Your task to perform on an android device: Open Chrome and go to the settings page Image 0: 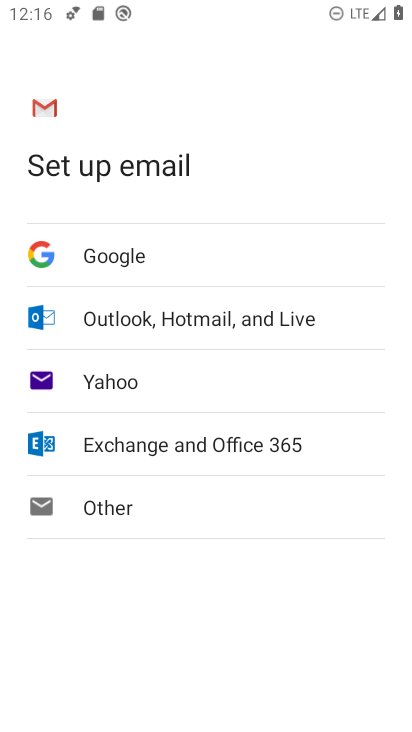
Step 0: press home button
Your task to perform on an android device: Open Chrome and go to the settings page Image 1: 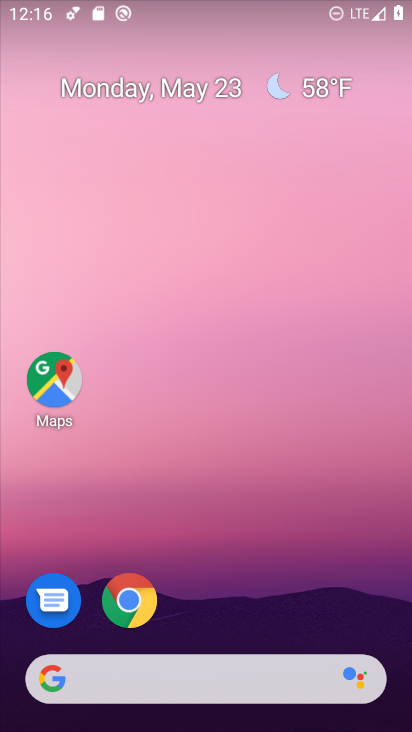
Step 1: drag from (323, 560) to (379, 54)
Your task to perform on an android device: Open Chrome and go to the settings page Image 2: 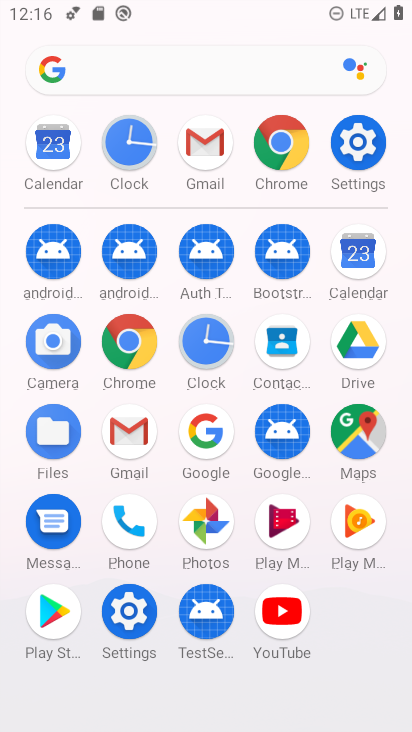
Step 2: click (290, 148)
Your task to perform on an android device: Open Chrome and go to the settings page Image 3: 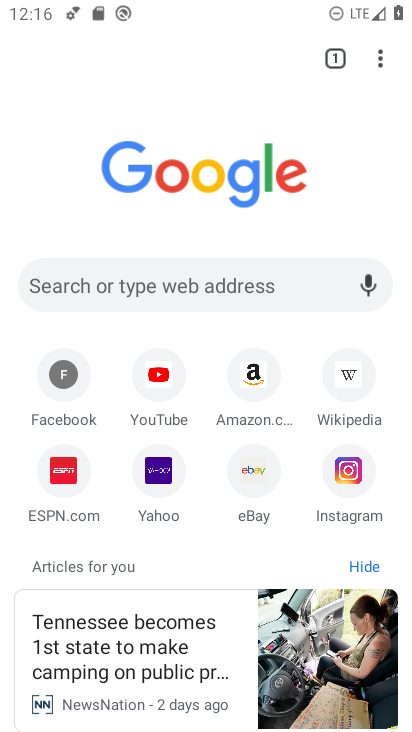
Step 3: task complete